Your task to perform on an android device: change the clock style Image 0: 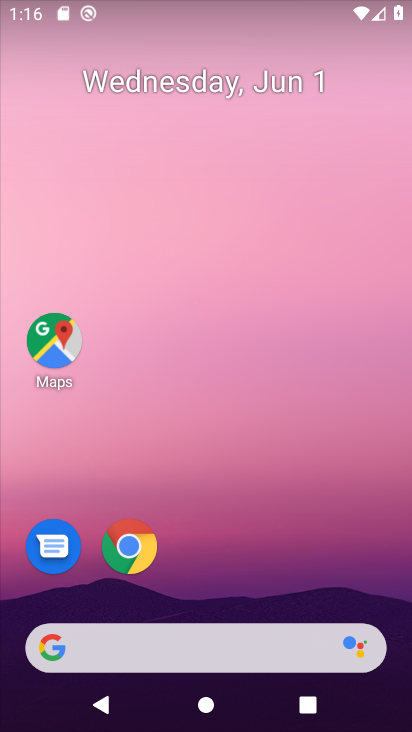
Step 0: drag from (187, 628) to (131, 54)
Your task to perform on an android device: change the clock style Image 1: 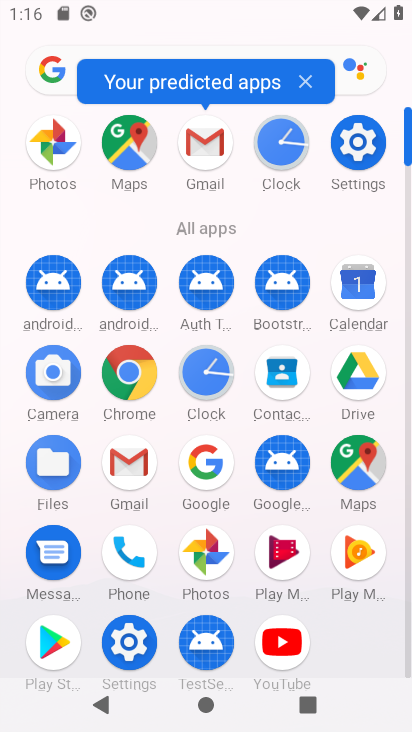
Step 1: click (284, 155)
Your task to perform on an android device: change the clock style Image 2: 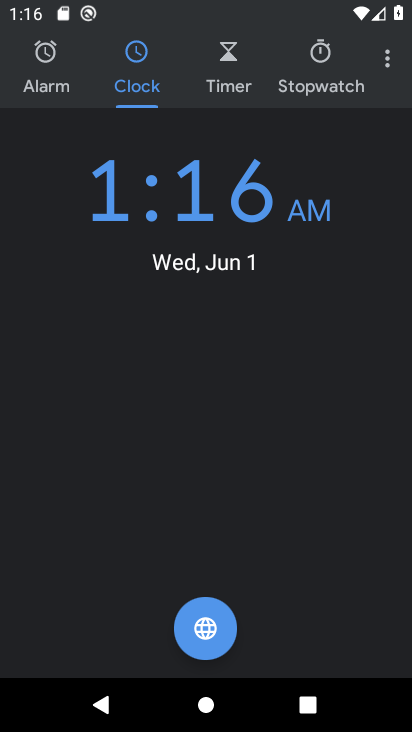
Step 2: click (387, 57)
Your task to perform on an android device: change the clock style Image 3: 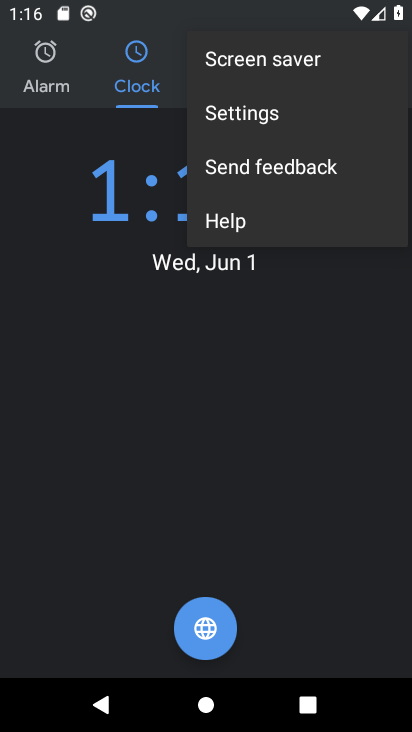
Step 3: click (290, 126)
Your task to perform on an android device: change the clock style Image 4: 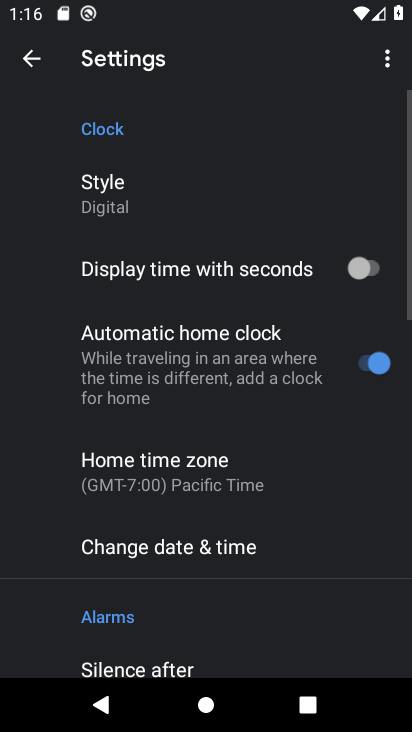
Step 4: click (133, 211)
Your task to perform on an android device: change the clock style Image 5: 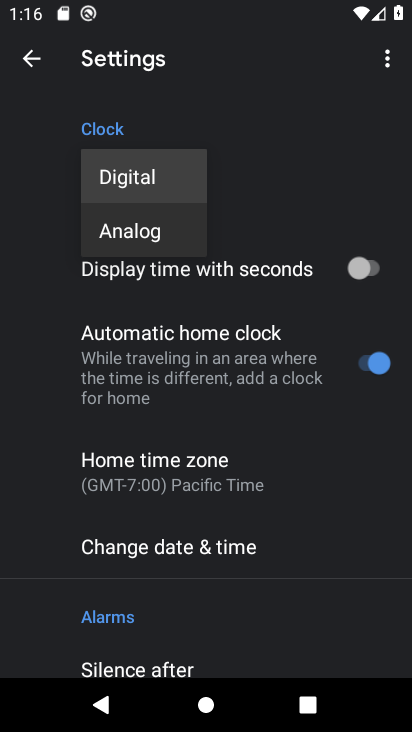
Step 5: click (154, 231)
Your task to perform on an android device: change the clock style Image 6: 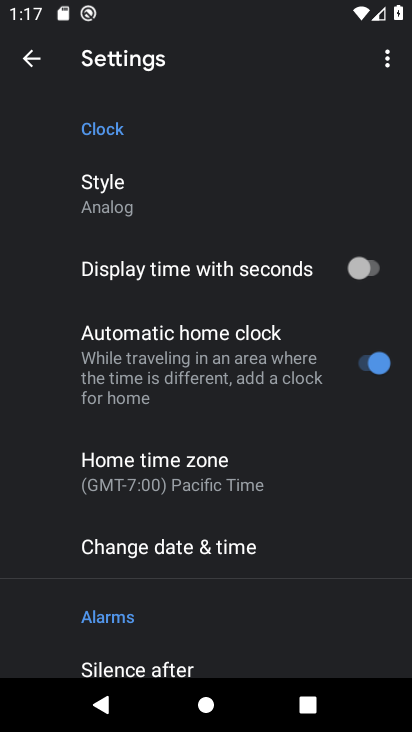
Step 6: task complete